Your task to perform on an android device: Go to internet settings Image 0: 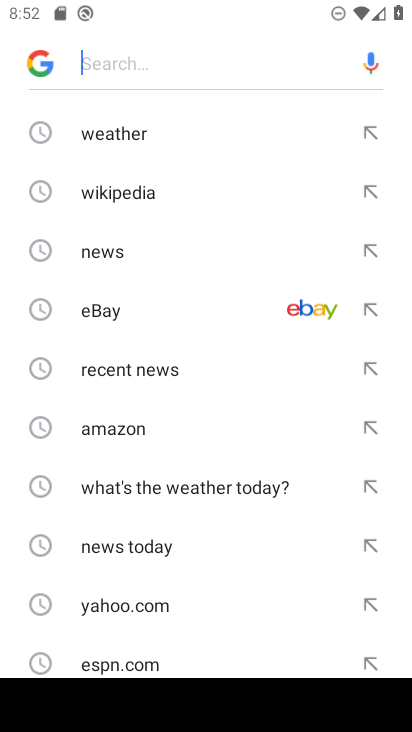
Step 0: drag from (262, 10) to (248, 582)
Your task to perform on an android device: Go to internet settings Image 1: 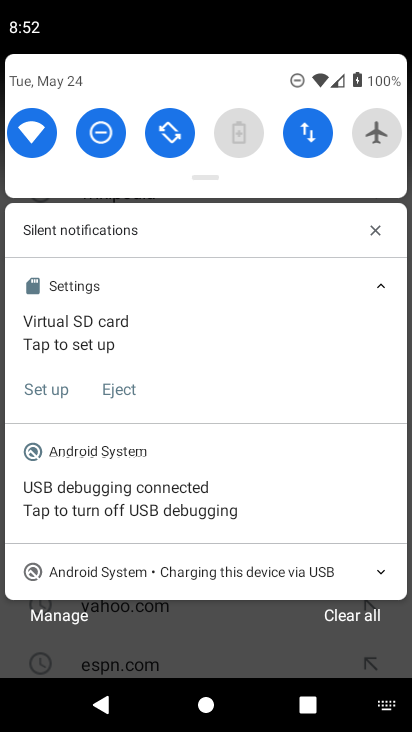
Step 1: click (312, 119)
Your task to perform on an android device: Go to internet settings Image 2: 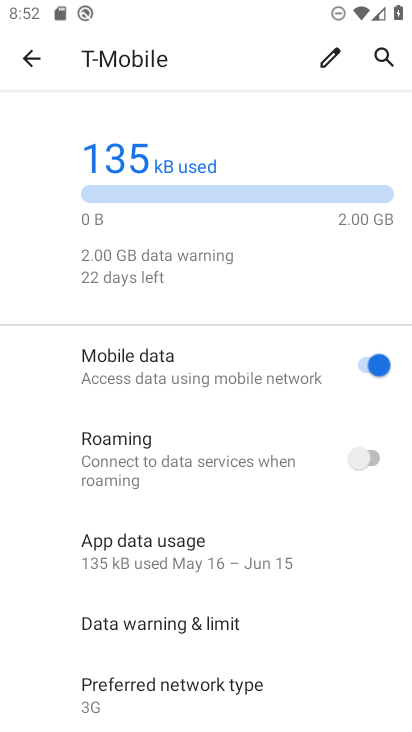
Step 2: task complete